Your task to perform on an android device: turn off priority inbox in the gmail app Image 0: 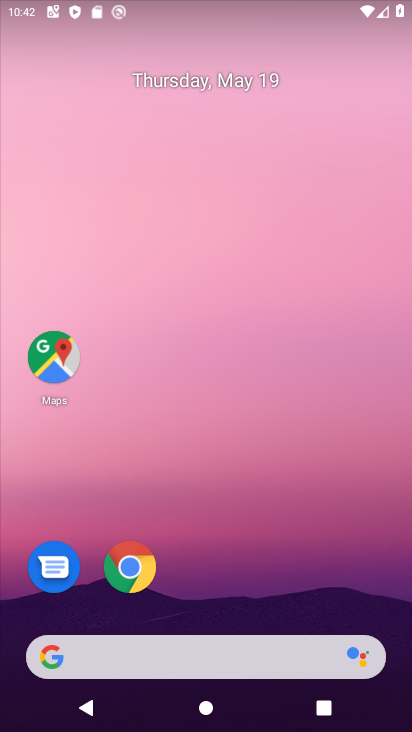
Step 0: drag from (362, 605) to (327, 41)
Your task to perform on an android device: turn off priority inbox in the gmail app Image 1: 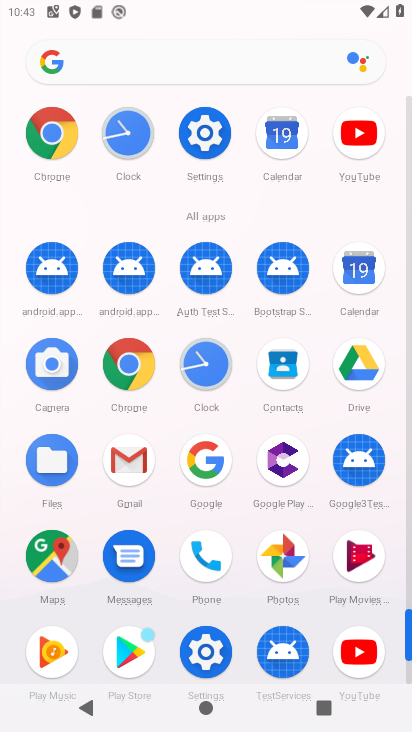
Step 1: click (122, 464)
Your task to perform on an android device: turn off priority inbox in the gmail app Image 2: 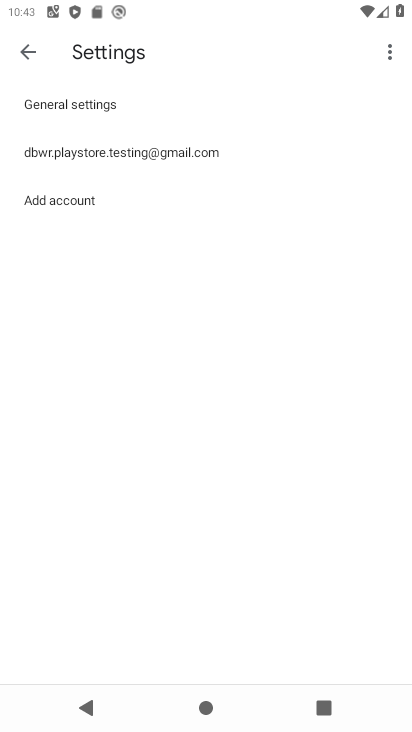
Step 2: click (126, 151)
Your task to perform on an android device: turn off priority inbox in the gmail app Image 3: 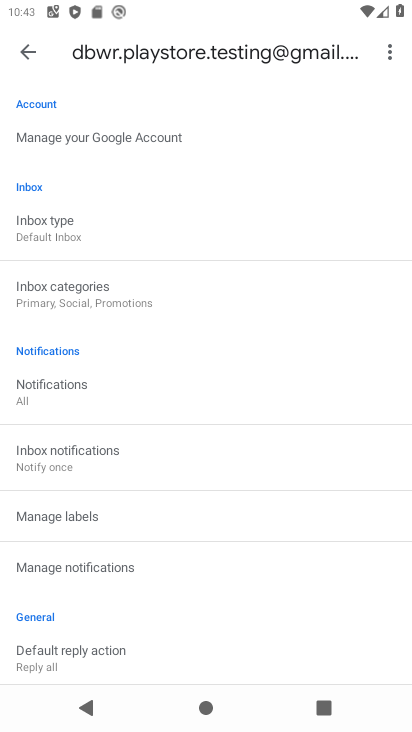
Step 3: click (71, 232)
Your task to perform on an android device: turn off priority inbox in the gmail app Image 4: 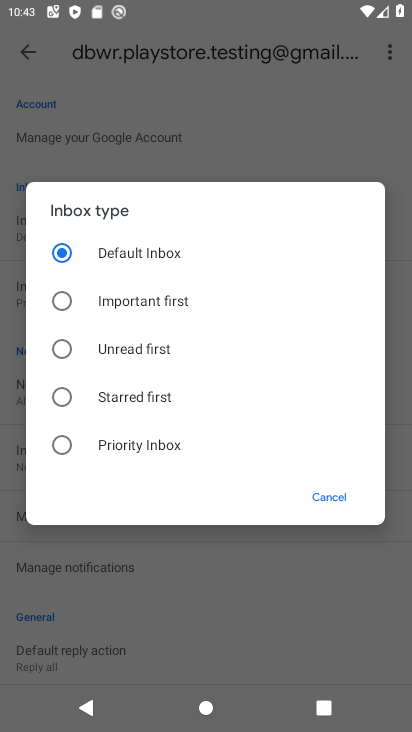
Step 4: task complete